Your task to perform on an android device: Toggle the flashlight Image 0: 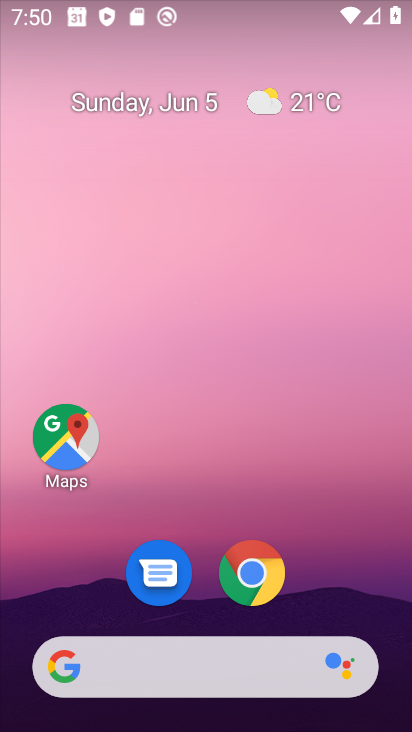
Step 0: drag from (317, 601) to (298, 136)
Your task to perform on an android device: Toggle the flashlight Image 1: 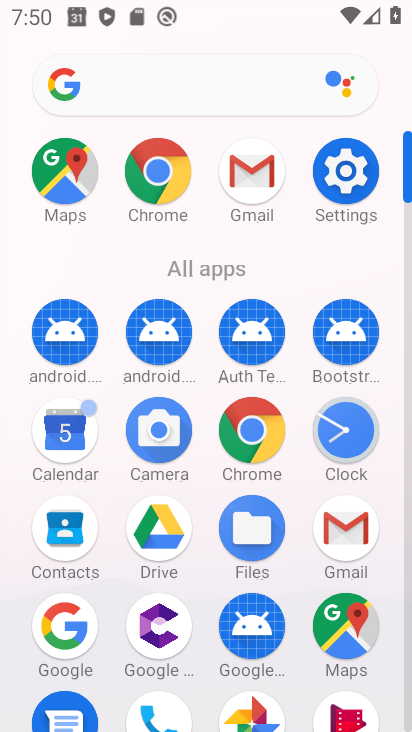
Step 1: click (349, 168)
Your task to perform on an android device: Toggle the flashlight Image 2: 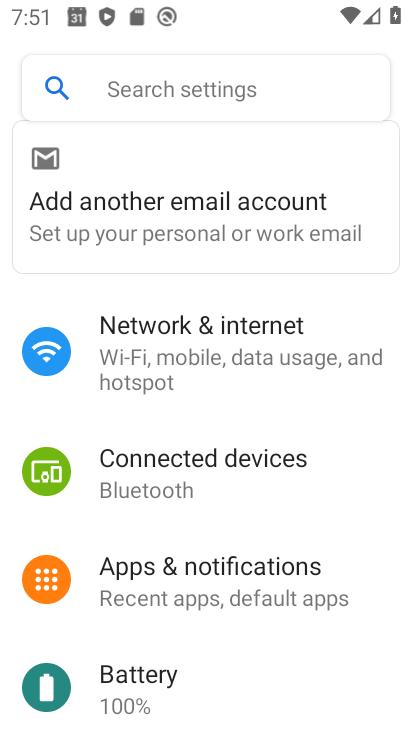
Step 2: task complete